Your task to perform on an android device: Open the calendar app, open the side menu, and click the "Day" option Image 0: 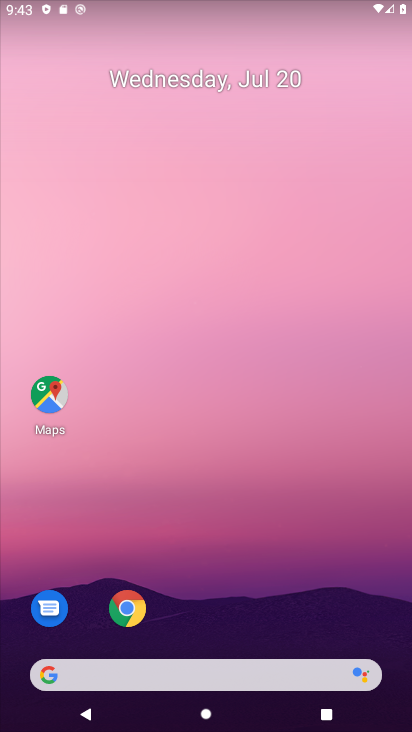
Step 0: drag from (274, 645) to (263, 217)
Your task to perform on an android device: Open the calendar app, open the side menu, and click the "Day" option Image 1: 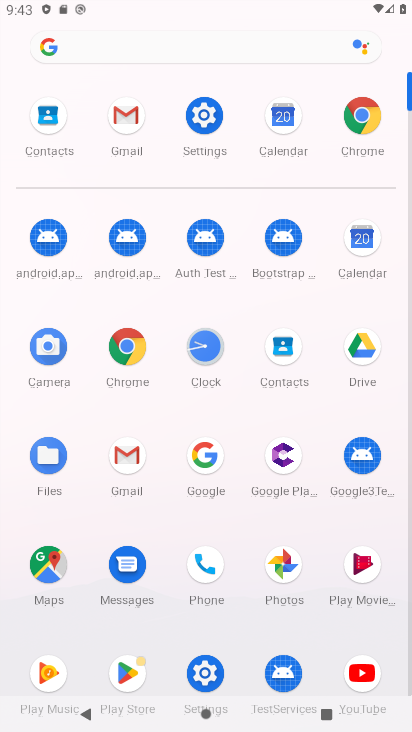
Step 1: click (116, 458)
Your task to perform on an android device: Open the calendar app, open the side menu, and click the "Day" option Image 2: 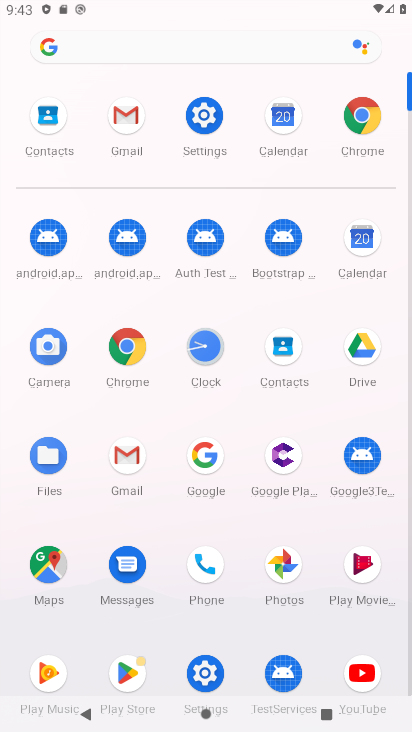
Step 2: click (128, 455)
Your task to perform on an android device: Open the calendar app, open the side menu, and click the "Day" option Image 3: 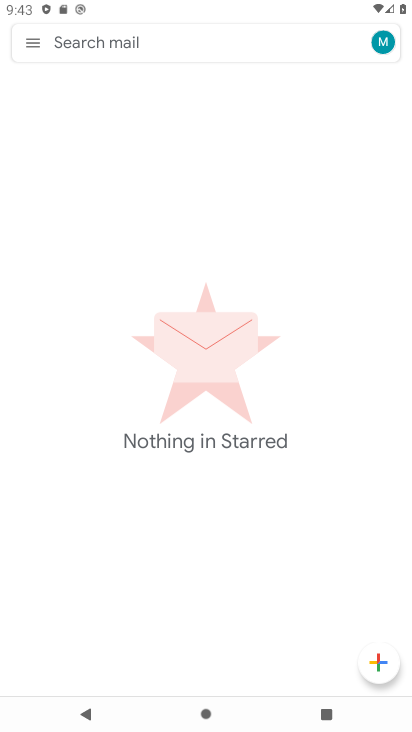
Step 3: press back button
Your task to perform on an android device: Open the calendar app, open the side menu, and click the "Day" option Image 4: 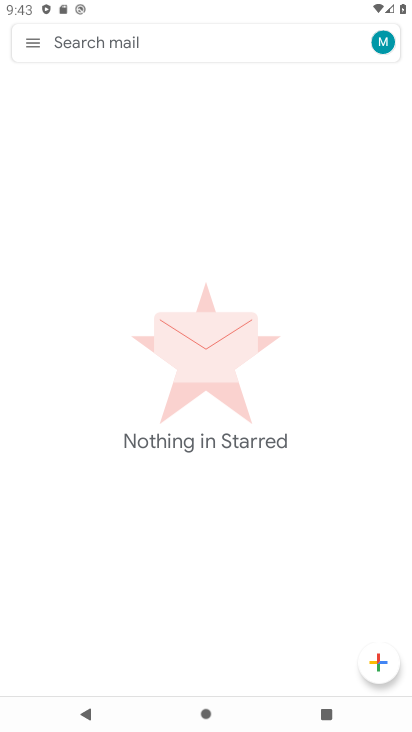
Step 4: press back button
Your task to perform on an android device: Open the calendar app, open the side menu, and click the "Day" option Image 5: 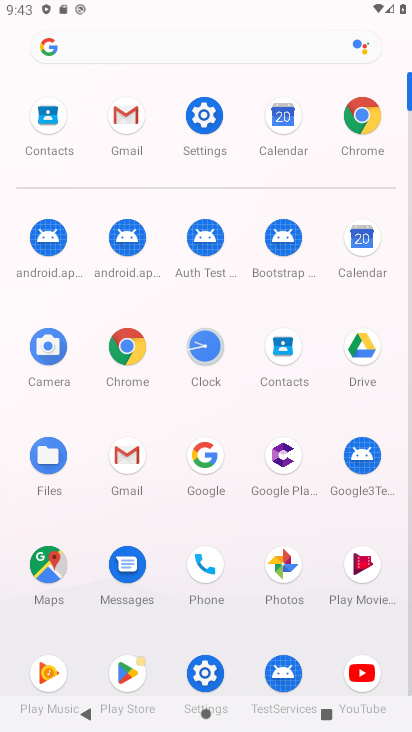
Step 5: click (362, 249)
Your task to perform on an android device: Open the calendar app, open the side menu, and click the "Day" option Image 6: 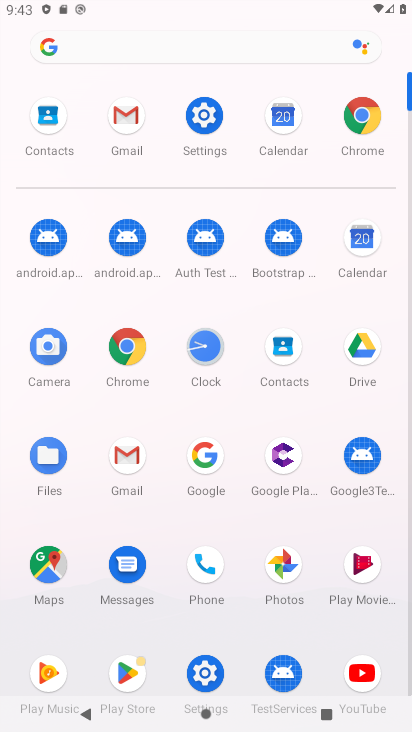
Step 6: click (363, 243)
Your task to perform on an android device: Open the calendar app, open the side menu, and click the "Day" option Image 7: 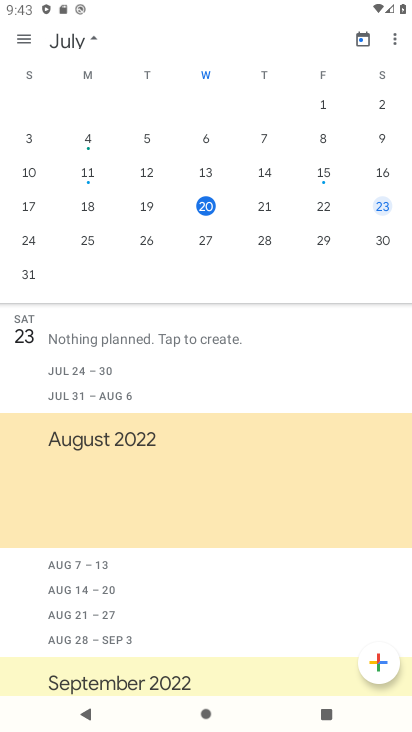
Step 7: click (40, 39)
Your task to perform on an android device: Open the calendar app, open the side menu, and click the "Day" option Image 8: 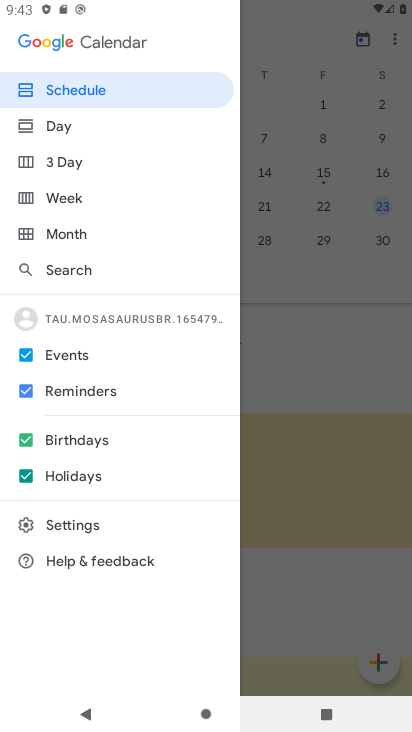
Step 8: click (71, 134)
Your task to perform on an android device: Open the calendar app, open the side menu, and click the "Day" option Image 9: 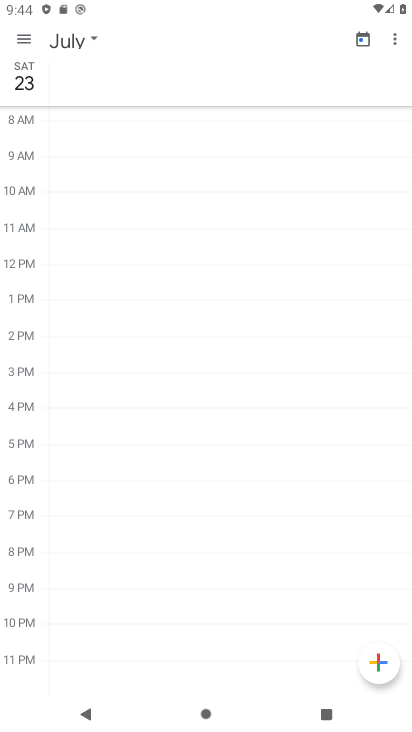
Step 9: task complete